Your task to perform on an android device: What is the news today? Image 0: 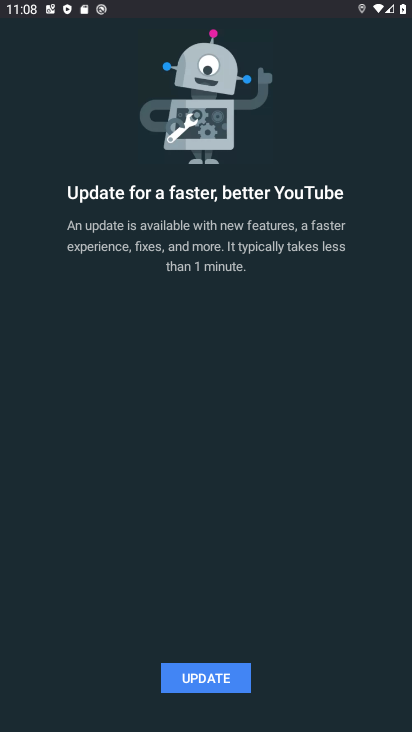
Step 0: press home button
Your task to perform on an android device: What is the news today? Image 1: 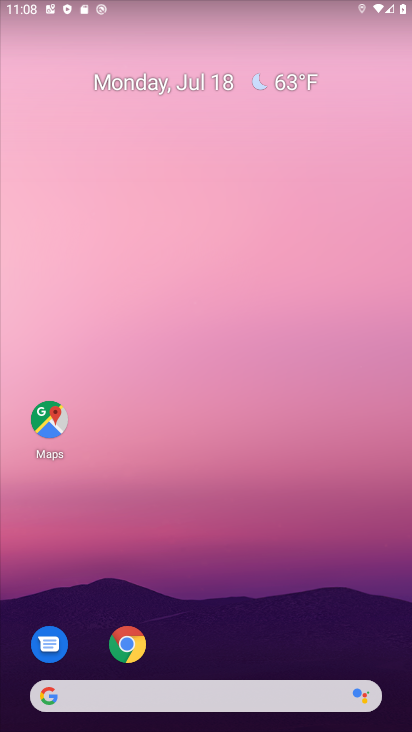
Step 1: task complete